Your task to perform on an android device: How much does the TCL TV cost? Image 0: 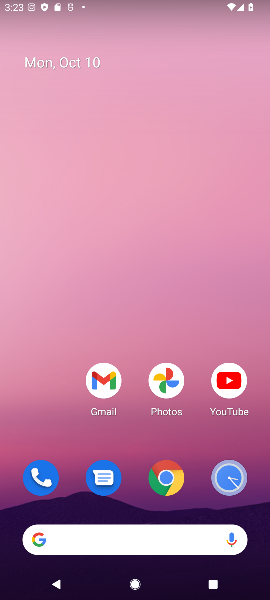
Step 0: click (171, 481)
Your task to perform on an android device: How much does the TCL TV cost? Image 1: 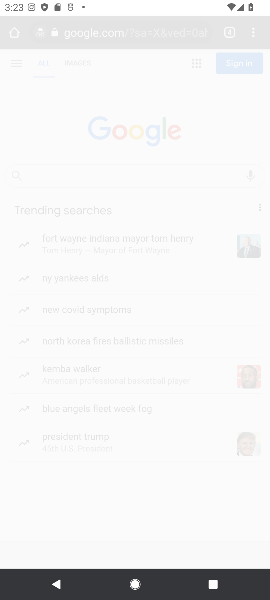
Step 1: click (171, 481)
Your task to perform on an android device: How much does the TCL TV cost? Image 2: 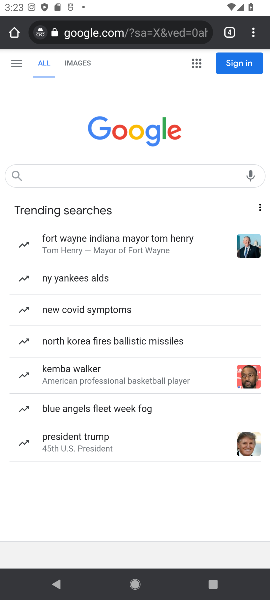
Step 2: click (121, 33)
Your task to perform on an android device: How much does the TCL TV cost? Image 3: 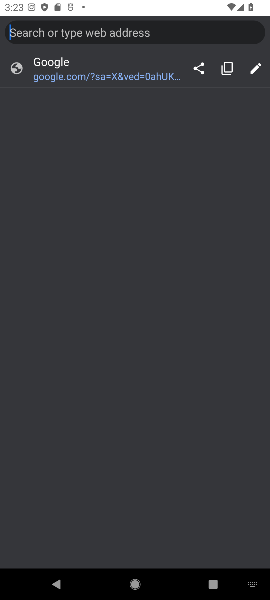
Step 3: type "How much does the TCL TV cost?"
Your task to perform on an android device: How much does the TCL TV cost? Image 4: 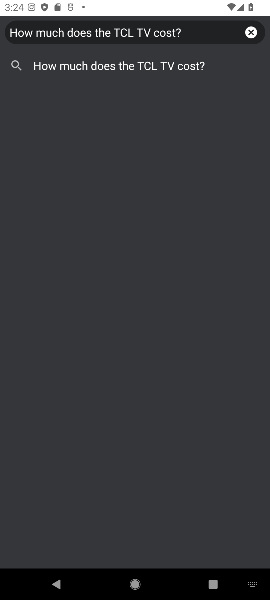
Step 4: click (102, 65)
Your task to perform on an android device: How much does the TCL TV cost? Image 5: 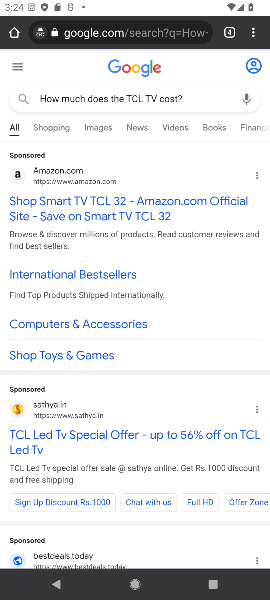
Step 5: task complete